Your task to perform on an android device: Open wifi settings Image 0: 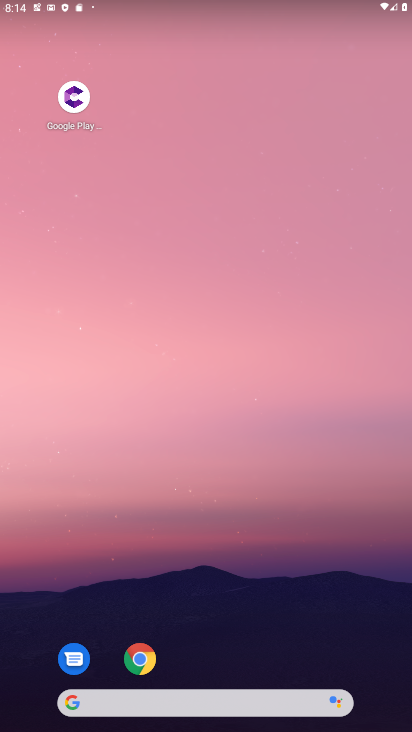
Step 0: drag from (155, 7) to (60, 502)
Your task to perform on an android device: Open wifi settings Image 1: 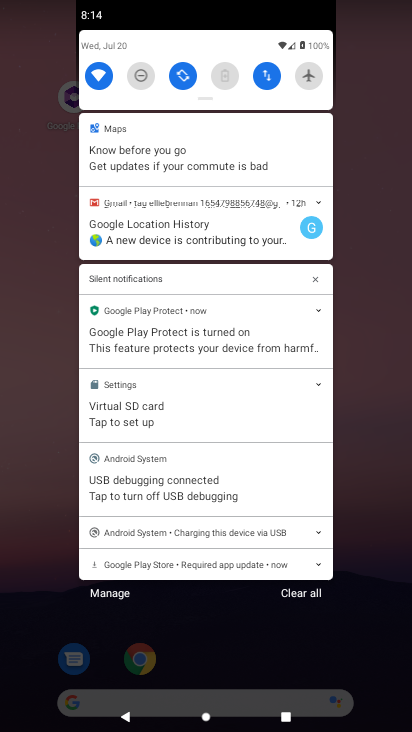
Step 1: click (99, 73)
Your task to perform on an android device: Open wifi settings Image 2: 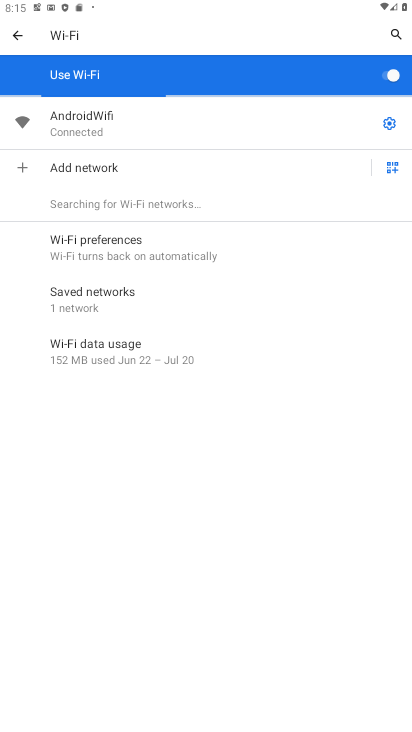
Step 2: task complete